Your task to perform on an android device: add a contact in the contacts app Image 0: 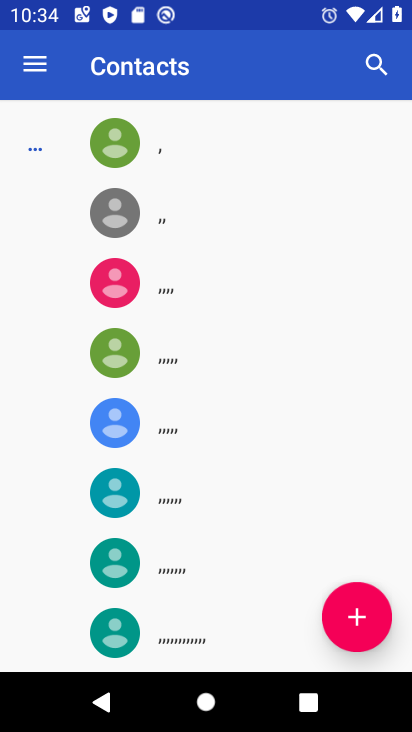
Step 0: click (361, 629)
Your task to perform on an android device: add a contact in the contacts app Image 1: 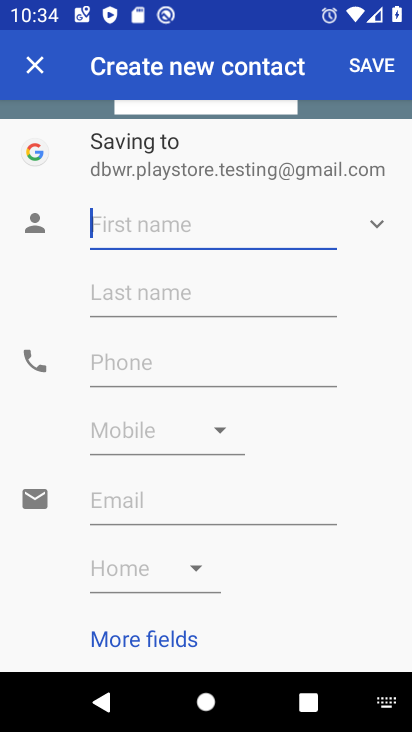
Step 1: click (103, 236)
Your task to perform on an android device: add a contact in the contacts app Image 2: 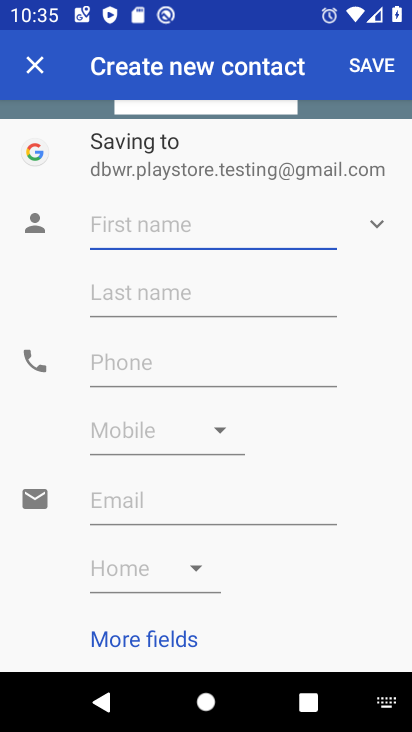
Step 2: type "pintu"
Your task to perform on an android device: add a contact in the contacts app Image 3: 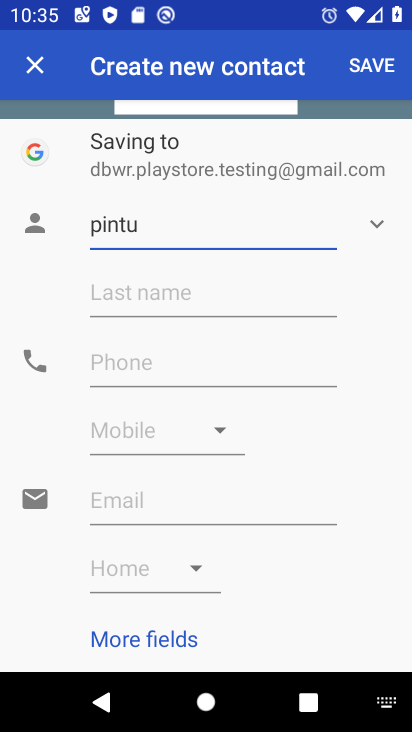
Step 3: click (160, 365)
Your task to perform on an android device: add a contact in the contacts app Image 4: 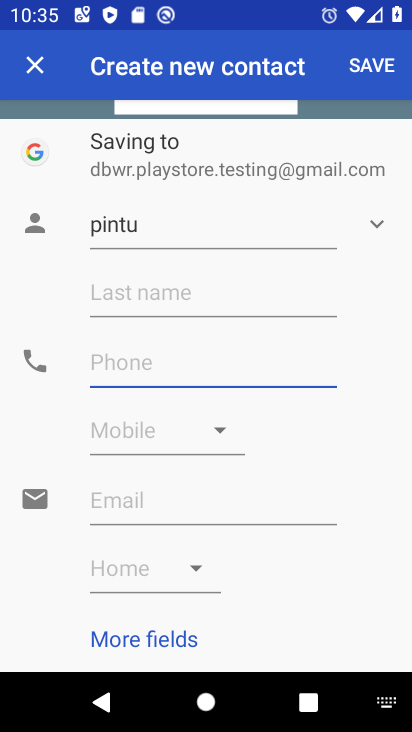
Step 4: type "8765544332"
Your task to perform on an android device: add a contact in the contacts app Image 5: 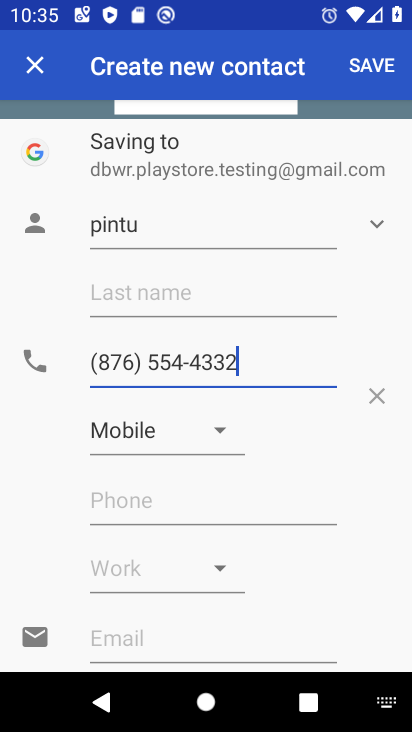
Step 5: click (354, 77)
Your task to perform on an android device: add a contact in the contacts app Image 6: 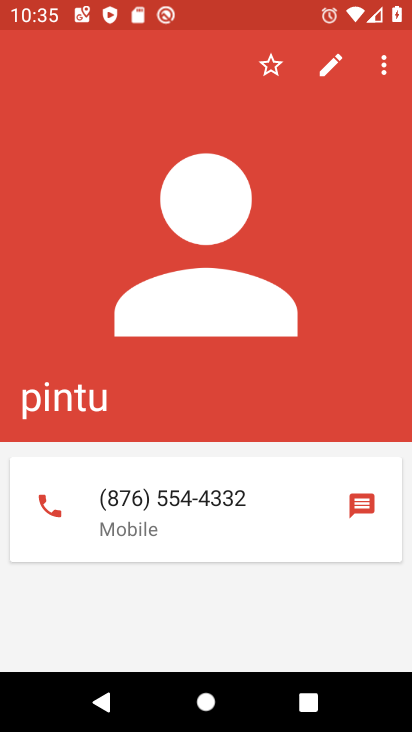
Step 6: task complete